Your task to perform on an android device: Install the Calendar app Image 0: 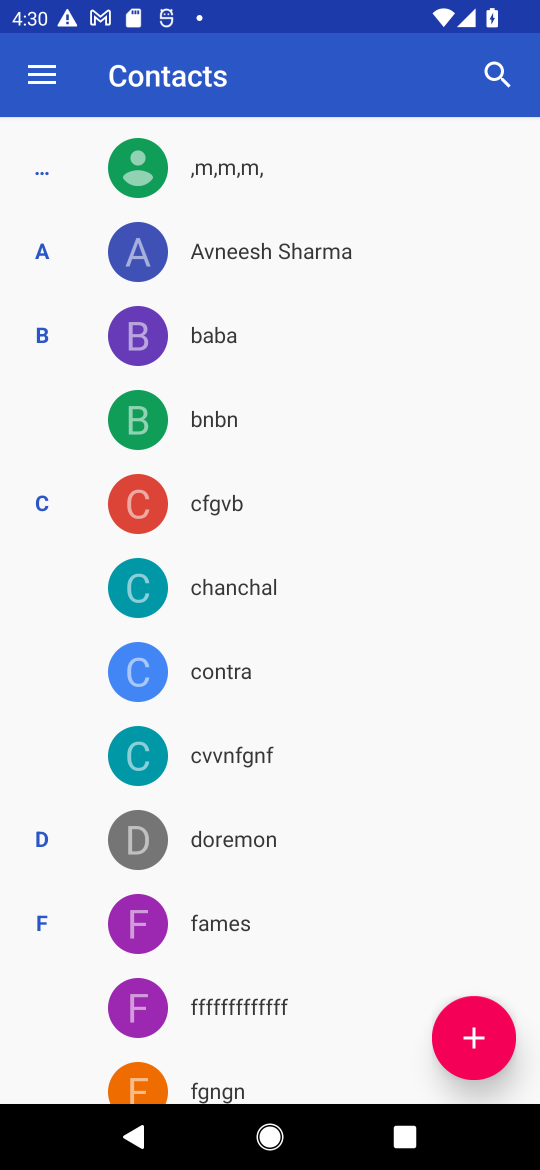
Step 0: press home button
Your task to perform on an android device: Install the Calendar app Image 1: 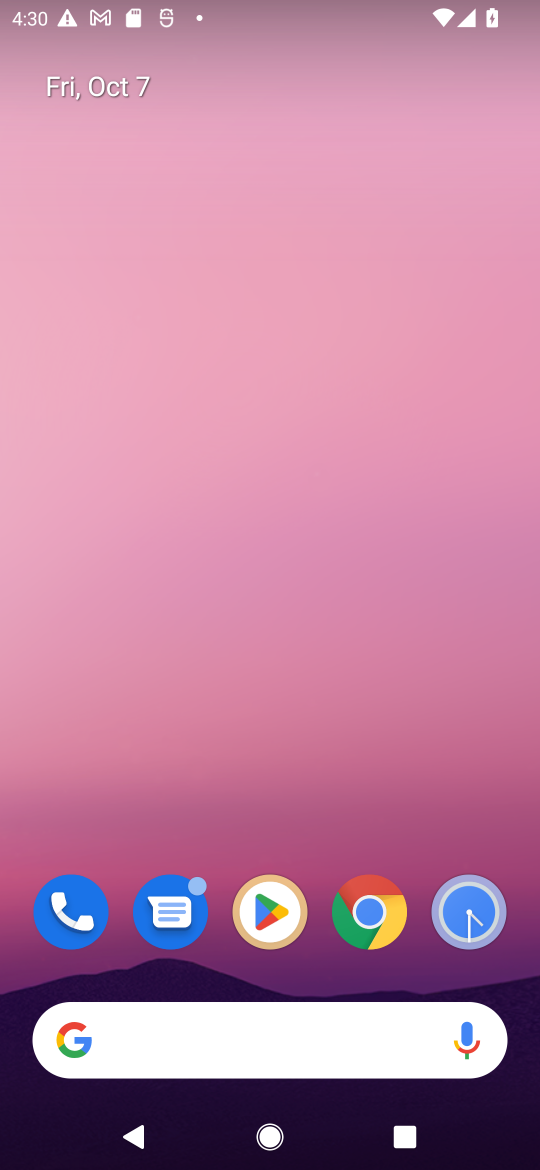
Step 1: click (259, 913)
Your task to perform on an android device: Install the Calendar app Image 2: 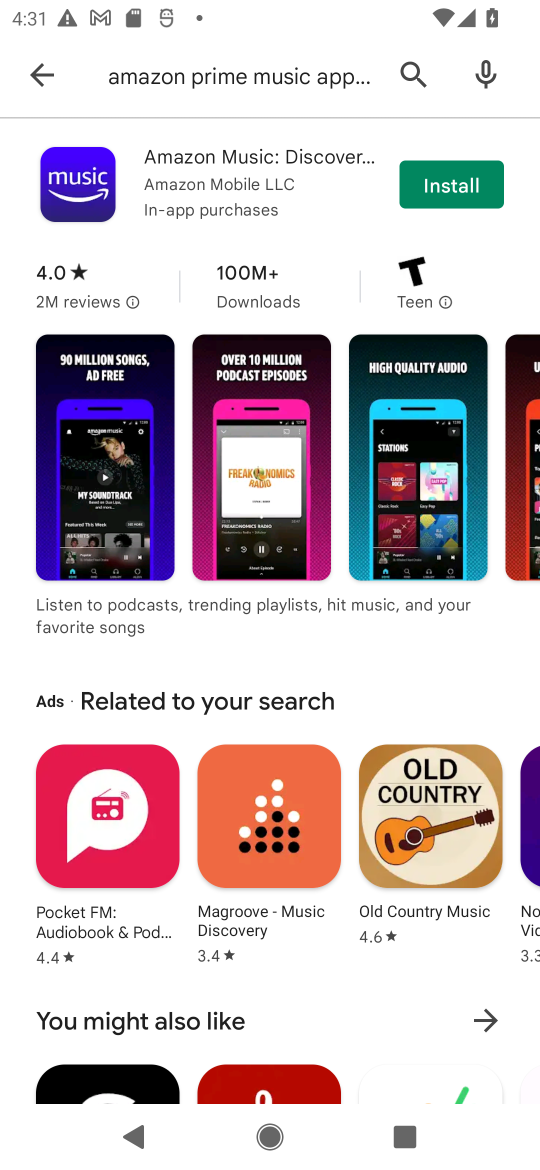
Step 2: click (397, 63)
Your task to perform on an android device: Install the Calendar app Image 3: 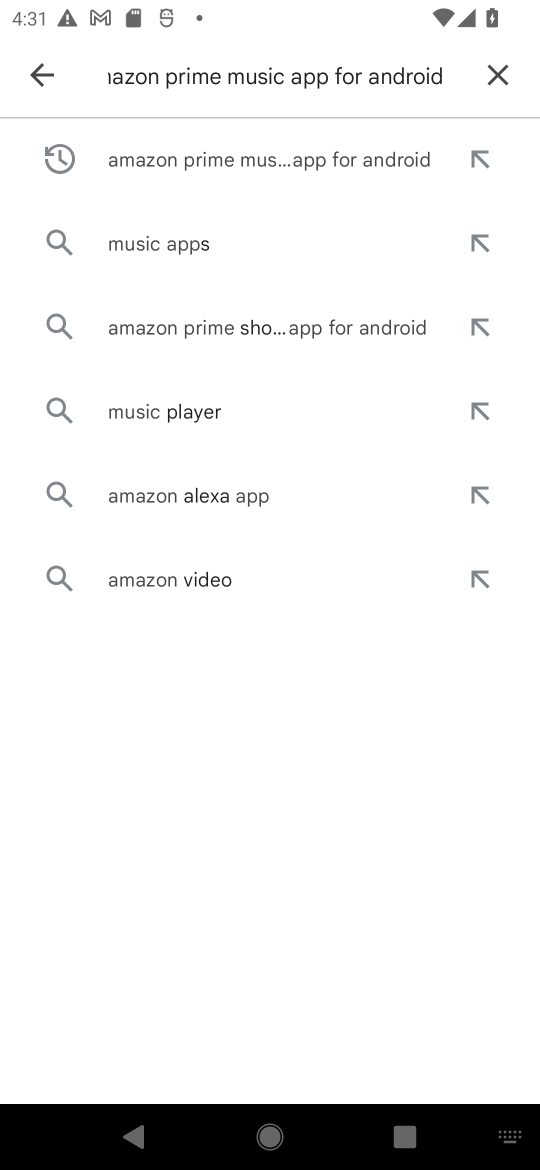
Step 3: click (510, 73)
Your task to perform on an android device: Install the Calendar app Image 4: 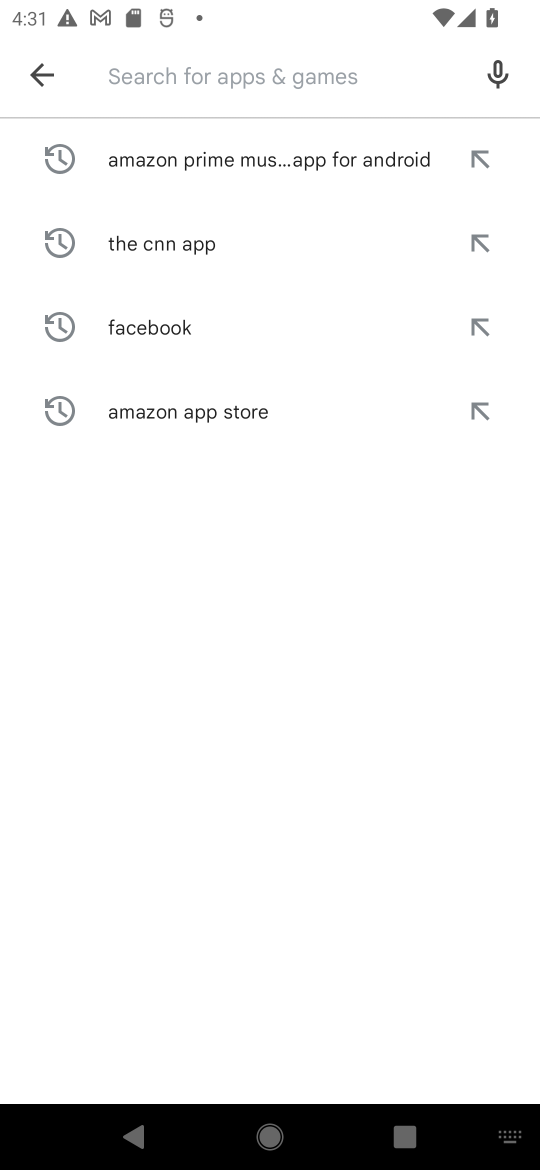
Step 4: click (268, 66)
Your task to perform on an android device: Install the Calendar app Image 5: 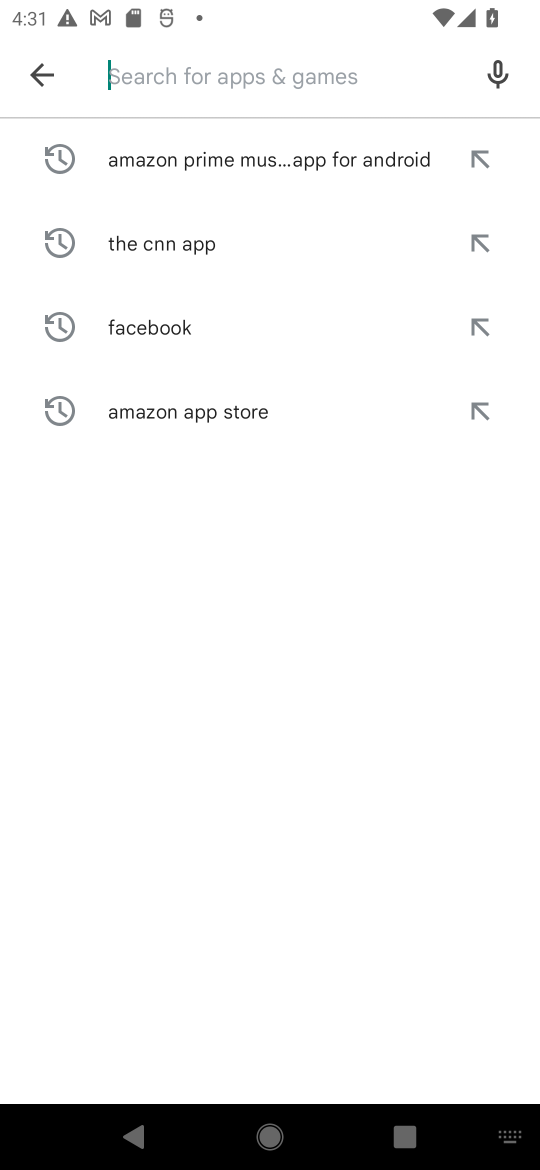
Step 5: type " the Calendar app "
Your task to perform on an android device: Install the Calendar app Image 6: 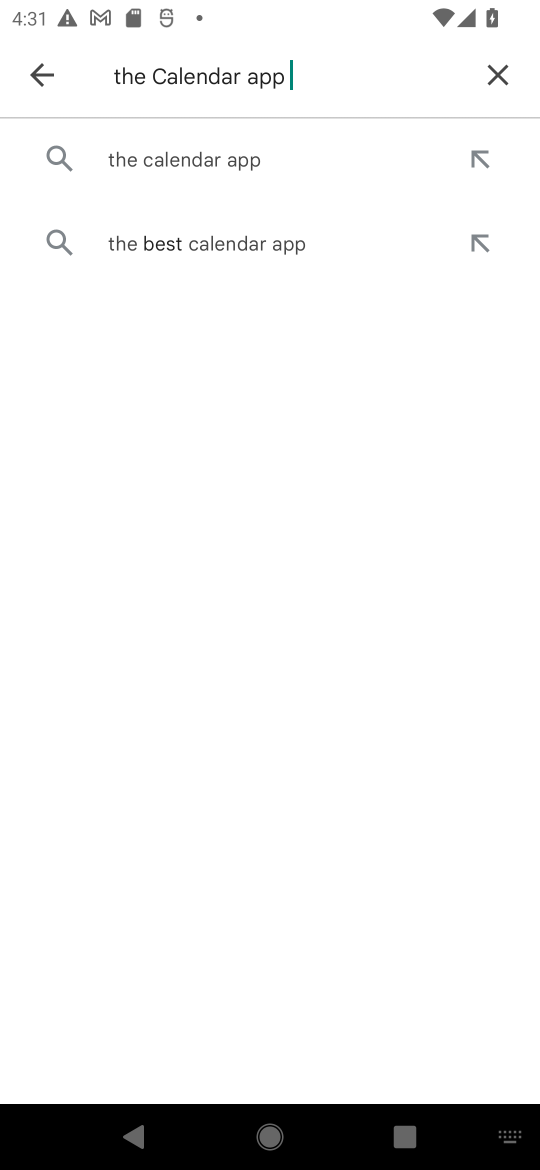
Step 6: click (192, 175)
Your task to perform on an android device: Install the Calendar app Image 7: 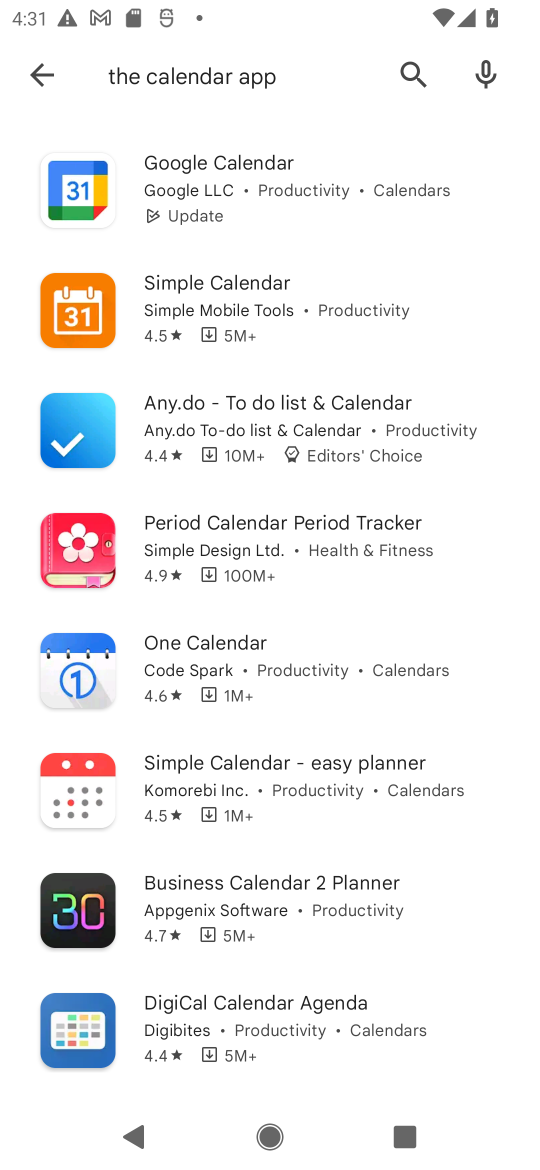
Step 7: click (192, 175)
Your task to perform on an android device: Install the Calendar app Image 8: 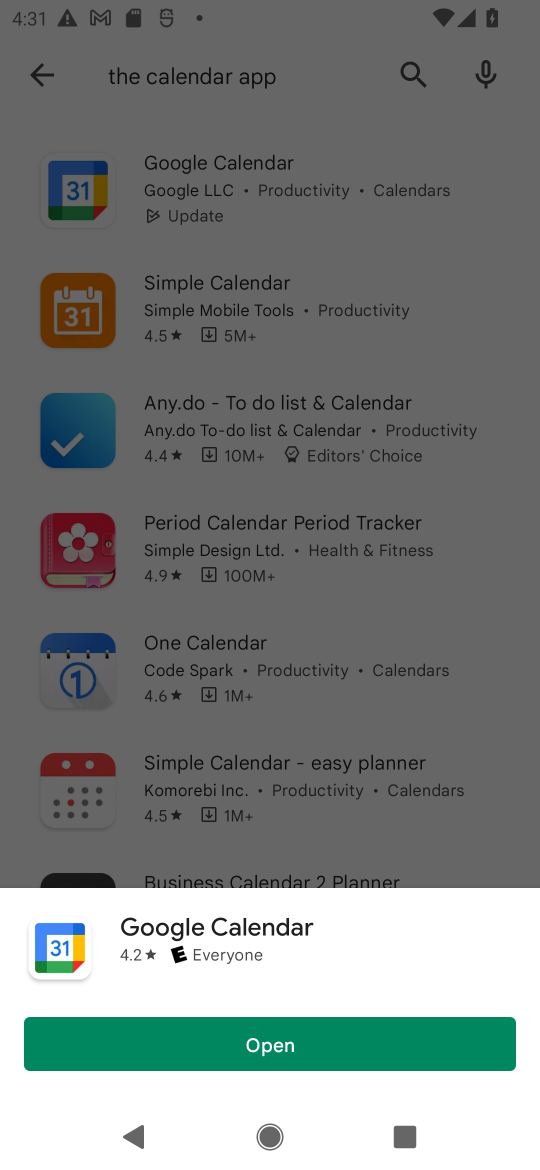
Step 8: click (224, 1045)
Your task to perform on an android device: Install the Calendar app Image 9: 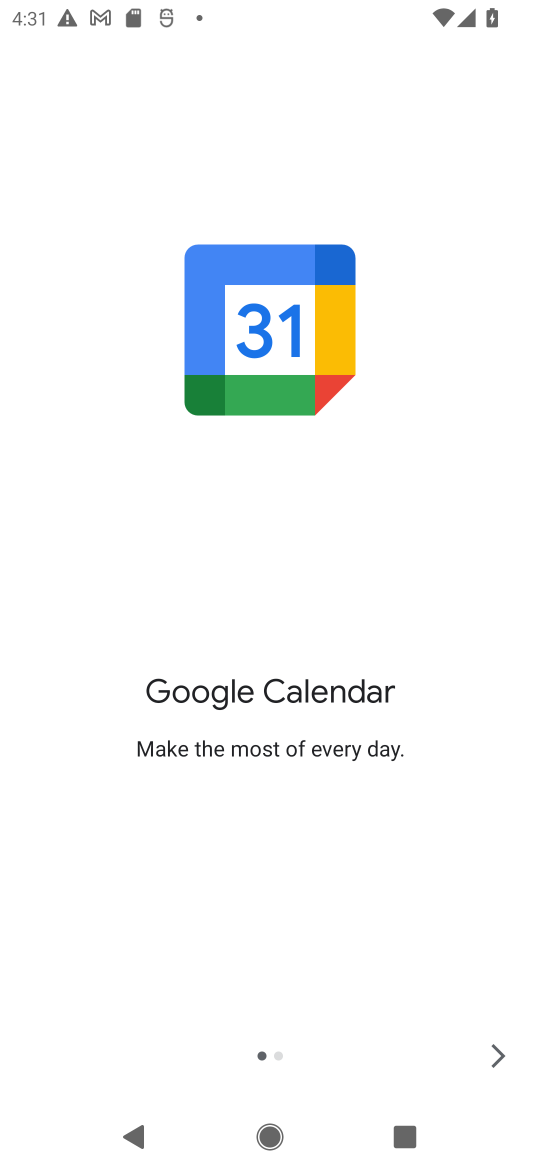
Step 9: click (480, 1041)
Your task to perform on an android device: Install the Calendar app Image 10: 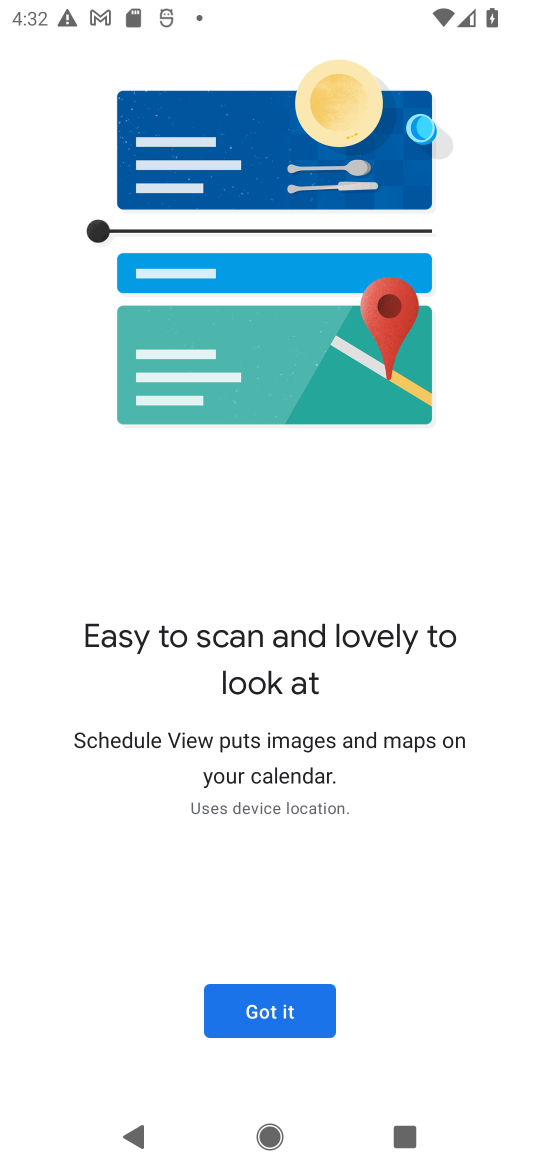
Step 10: click (311, 995)
Your task to perform on an android device: Install the Calendar app Image 11: 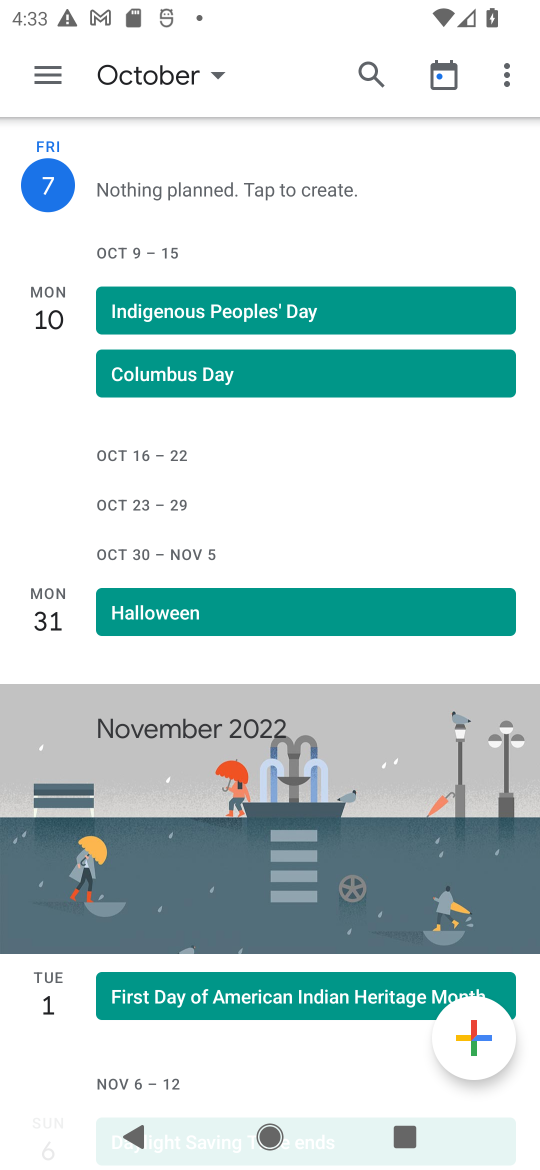
Step 11: task complete